Your task to perform on an android device: turn smart compose on in the gmail app Image 0: 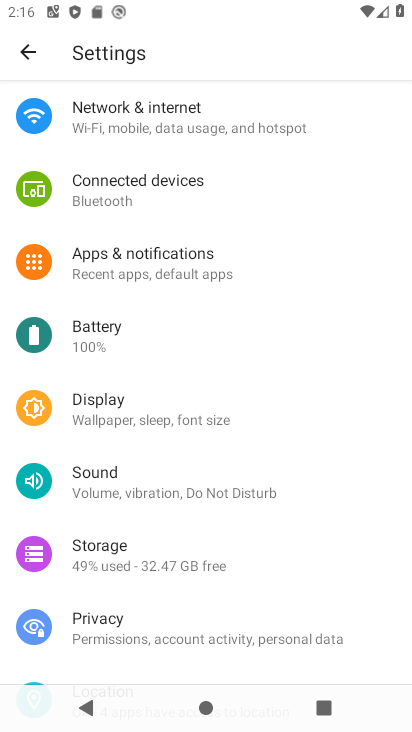
Step 0: press home button
Your task to perform on an android device: turn smart compose on in the gmail app Image 1: 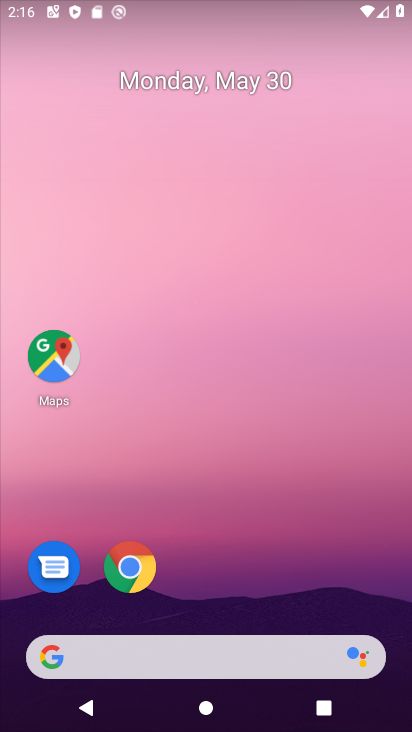
Step 1: drag from (216, 600) to (229, 222)
Your task to perform on an android device: turn smart compose on in the gmail app Image 2: 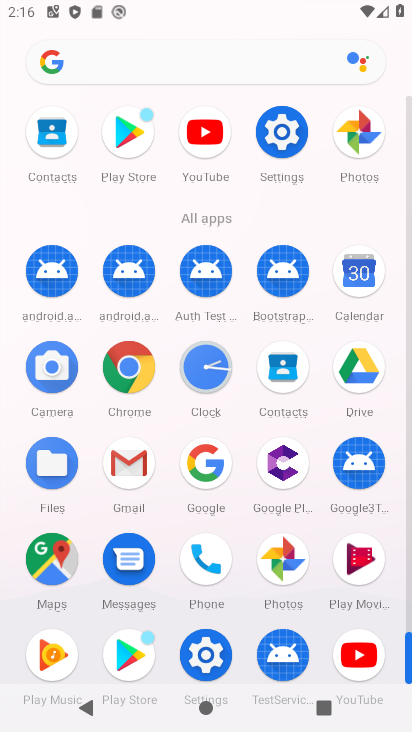
Step 2: click (139, 467)
Your task to perform on an android device: turn smart compose on in the gmail app Image 3: 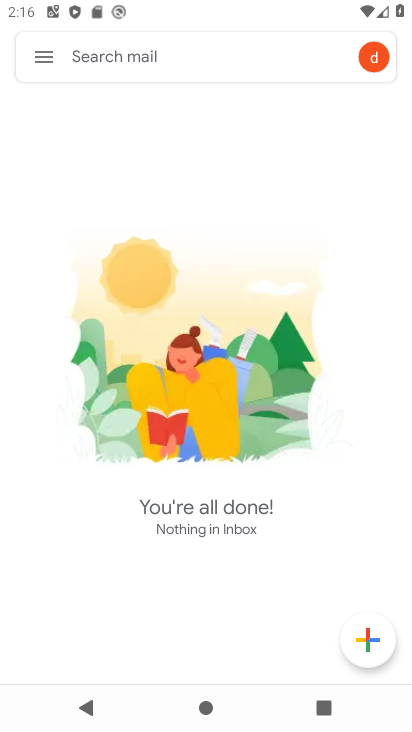
Step 3: click (47, 59)
Your task to perform on an android device: turn smart compose on in the gmail app Image 4: 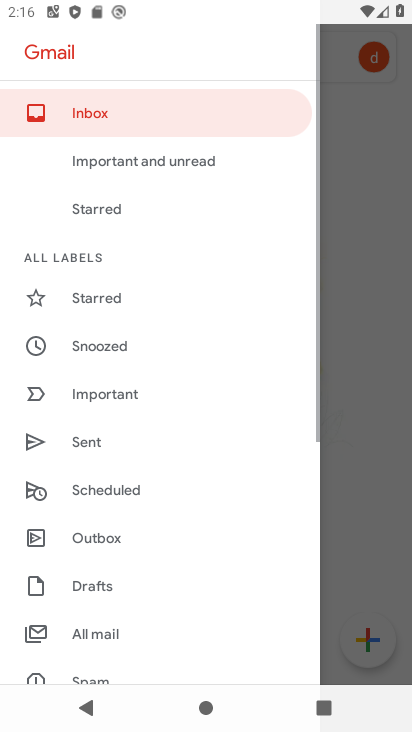
Step 4: drag from (126, 636) to (163, 118)
Your task to perform on an android device: turn smart compose on in the gmail app Image 5: 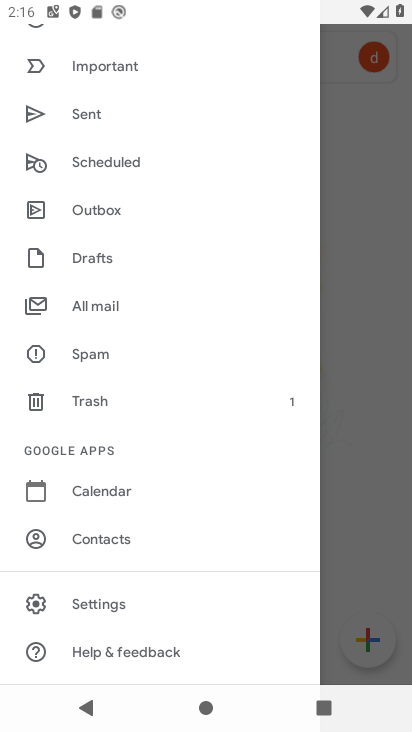
Step 5: click (97, 604)
Your task to perform on an android device: turn smart compose on in the gmail app Image 6: 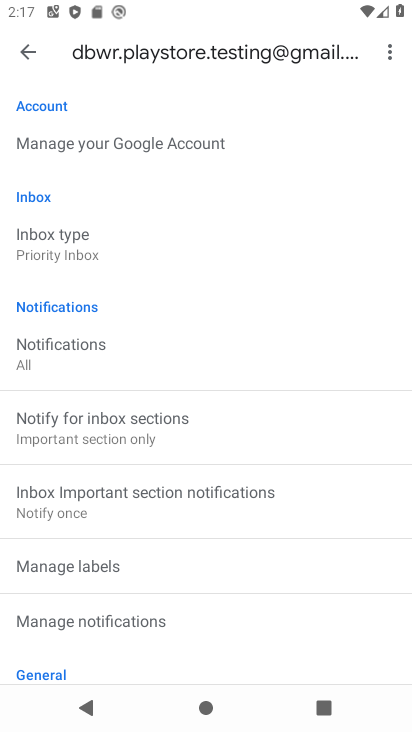
Step 6: task complete